Your task to perform on an android device: Open maps Image 0: 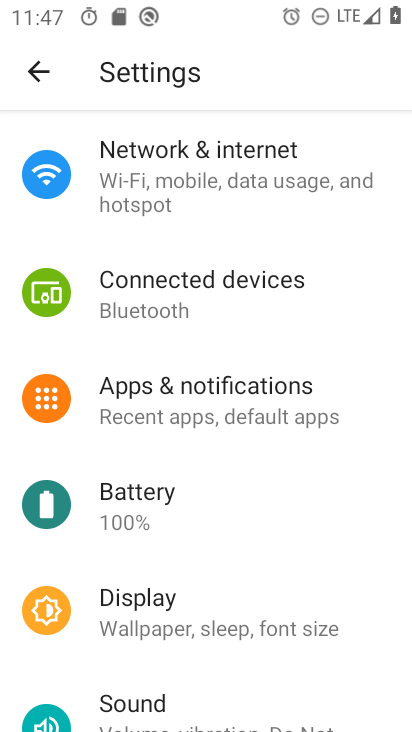
Step 0: press home button
Your task to perform on an android device: Open maps Image 1: 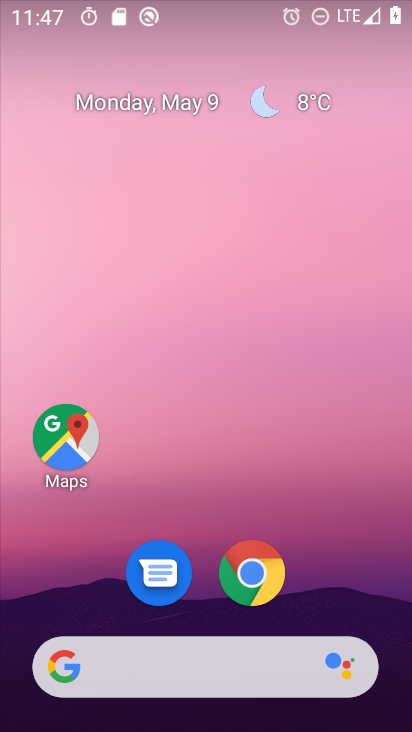
Step 1: click (61, 450)
Your task to perform on an android device: Open maps Image 2: 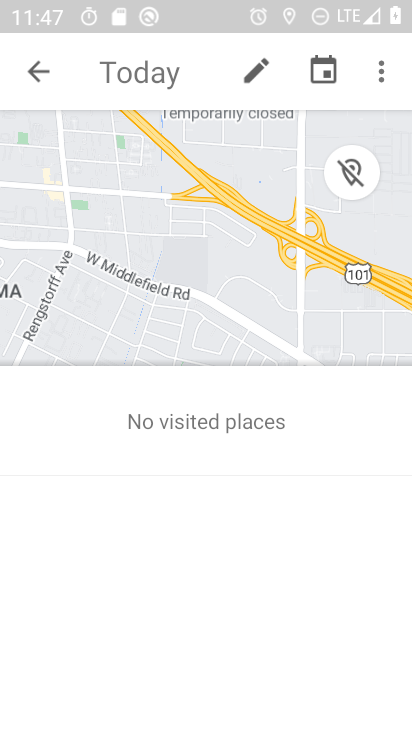
Step 2: task complete